Your task to perform on an android device: find photos in the google photos app Image 0: 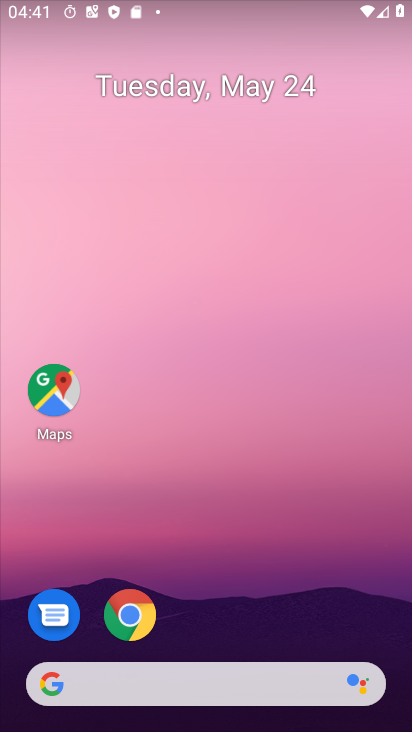
Step 0: drag from (226, 569) to (267, 117)
Your task to perform on an android device: find photos in the google photos app Image 1: 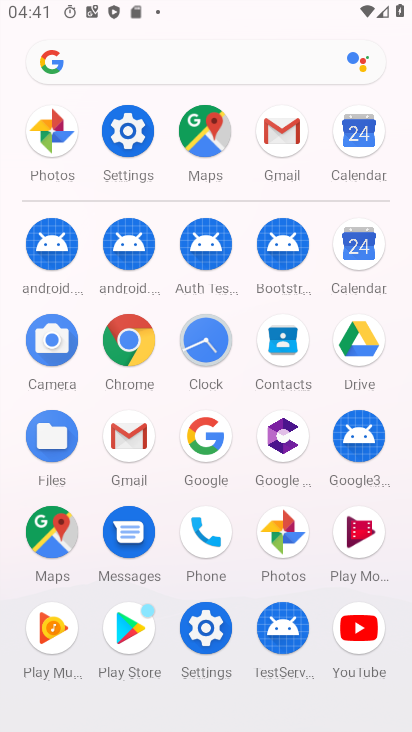
Step 1: click (283, 531)
Your task to perform on an android device: find photos in the google photos app Image 2: 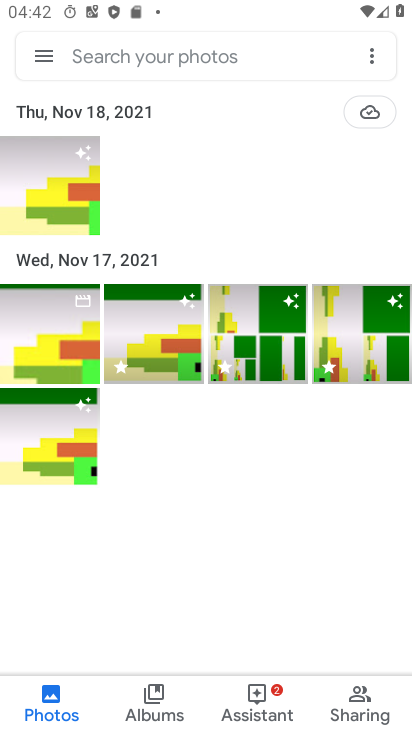
Step 2: task complete